Your task to perform on an android device: Go to Yahoo.com Image 0: 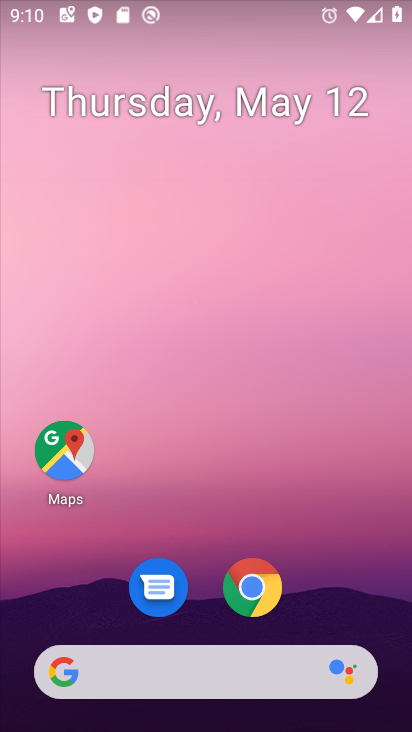
Step 0: drag from (314, 447) to (306, 259)
Your task to perform on an android device: Go to Yahoo.com Image 1: 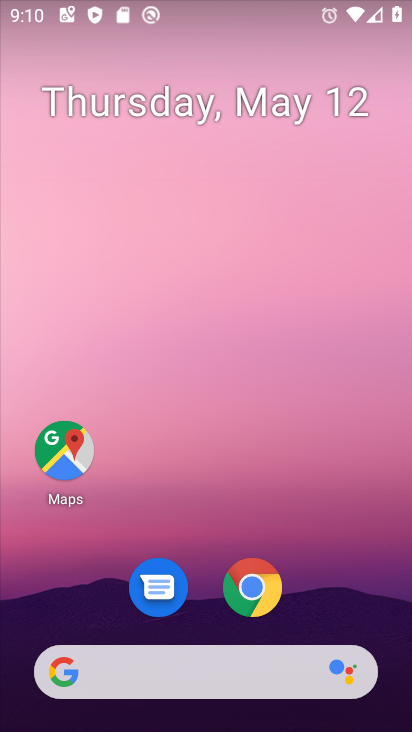
Step 1: drag from (286, 625) to (291, 252)
Your task to perform on an android device: Go to Yahoo.com Image 2: 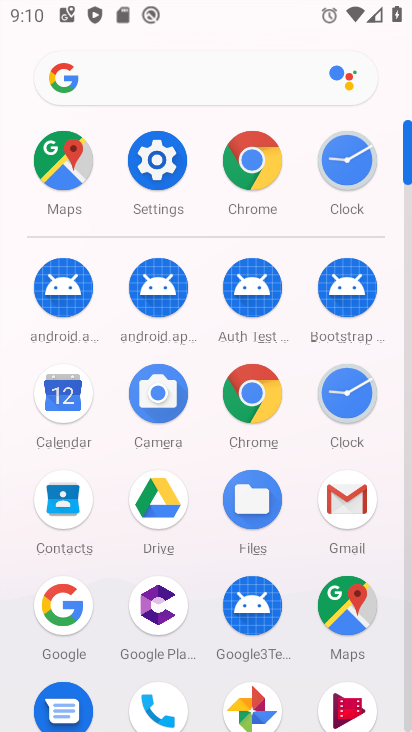
Step 2: click (247, 402)
Your task to perform on an android device: Go to Yahoo.com Image 3: 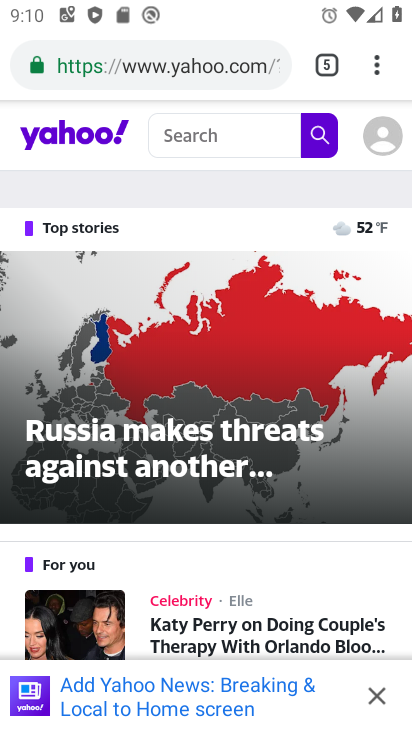
Step 3: task complete